Your task to perform on an android device: Find the nearest electronics store that's open Image 0: 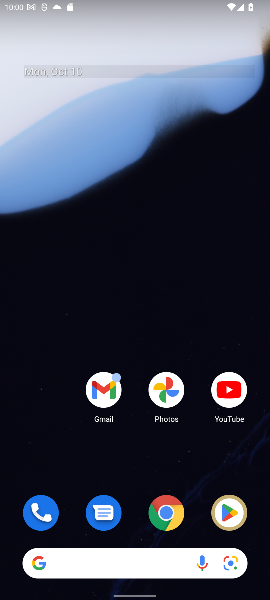
Step 0: click (147, 564)
Your task to perform on an android device: Find the nearest electronics store that's open Image 1: 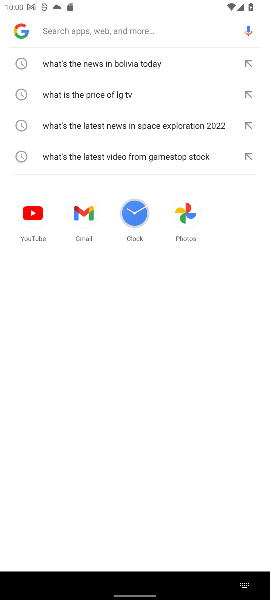
Step 1: press home button
Your task to perform on an android device: Find the nearest electronics store that's open Image 2: 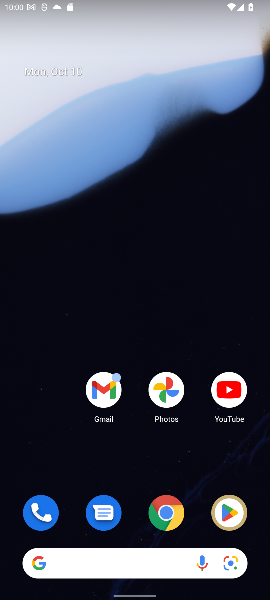
Step 2: drag from (129, 511) to (135, 96)
Your task to perform on an android device: Find the nearest electronics store that's open Image 3: 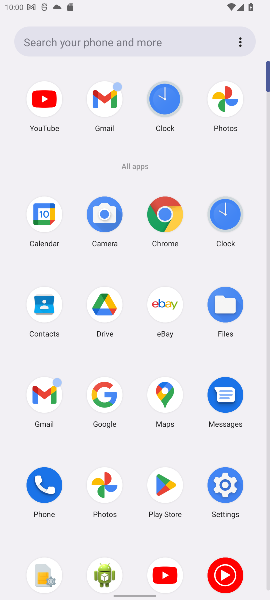
Step 3: click (165, 398)
Your task to perform on an android device: Find the nearest electronics store that's open Image 4: 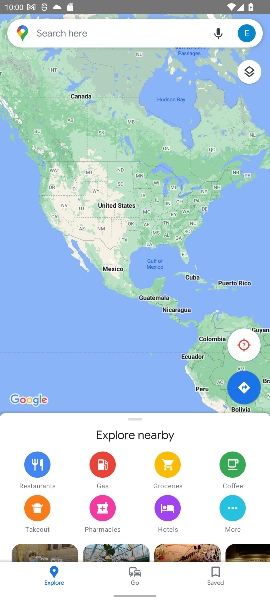
Step 4: click (111, 25)
Your task to perform on an android device: Find the nearest electronics store that's open Image 5: 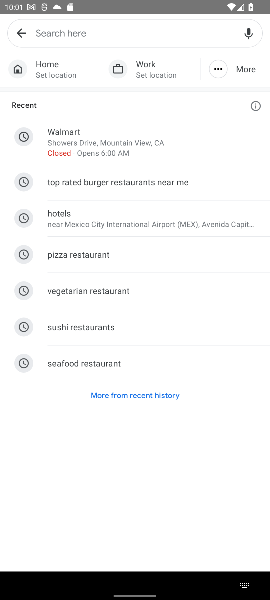
Step 5: type "Find the nearest electronics store that's open"
Your task to perform on an android device: Find the nearest electronics store that's open Image 6: 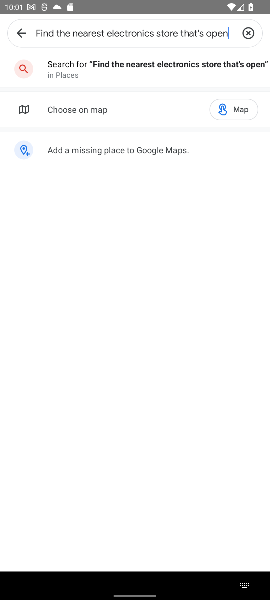
Step 6: click (129, 63)
Your task to perform on an android device: Find the nearest electronics store that's open Image 7: 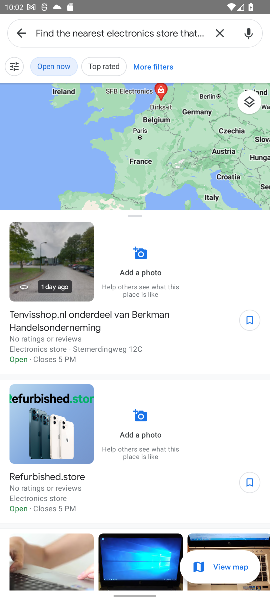
Step 7: task complete